Your task to perform on an android device: manage bookmarks in the chrome app Image 0: 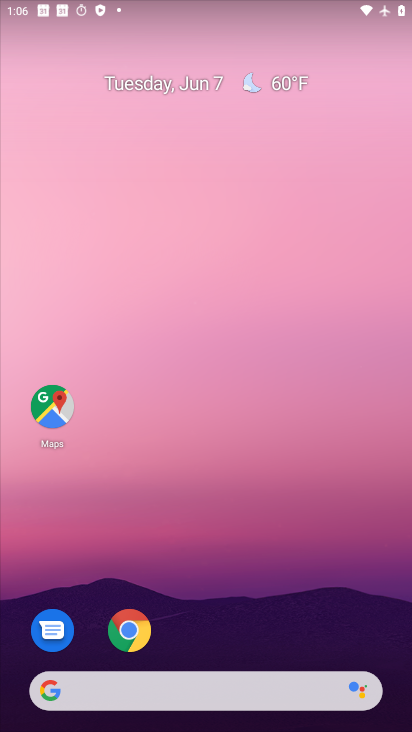
Step 0: drag from (378, 657) to (289, 112)
Your task to perform on an android device: manage bookmarks in the chrome app Image 1: 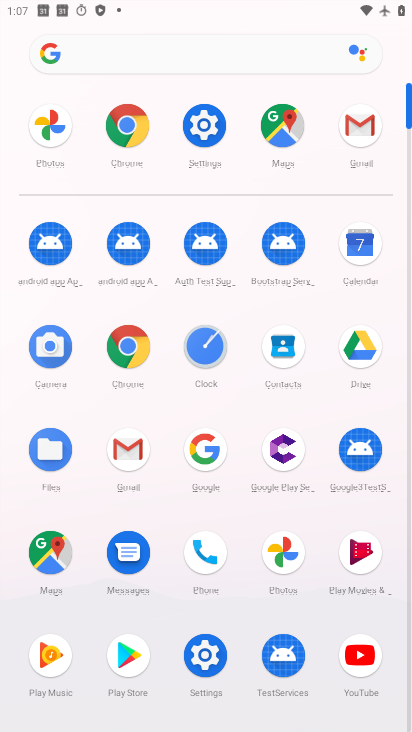
Step 1: click (148, 353)
Your task to perform on an android device: manage bookmarks in the chrome app Image 2: 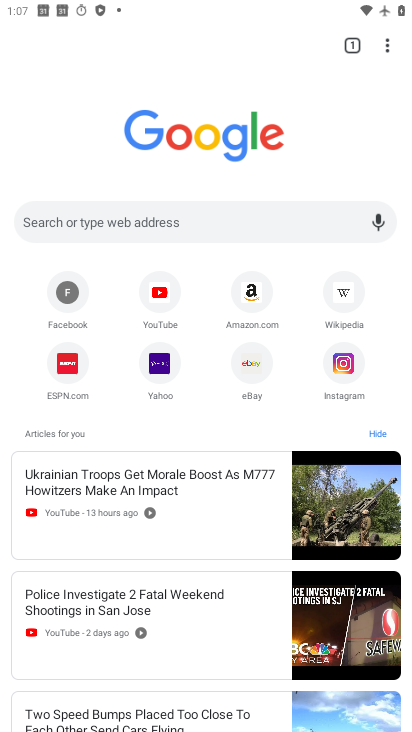
Step 2: task complete